Your task to perform on an android device: turn smart compose on in the gmail app Image 0: 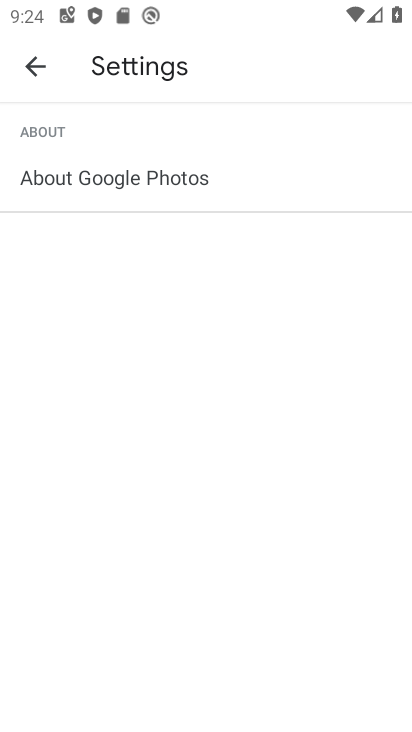
Step 0: press home button
Your task to perform on an android device: turn smart compose on in the gmail app Image 1: 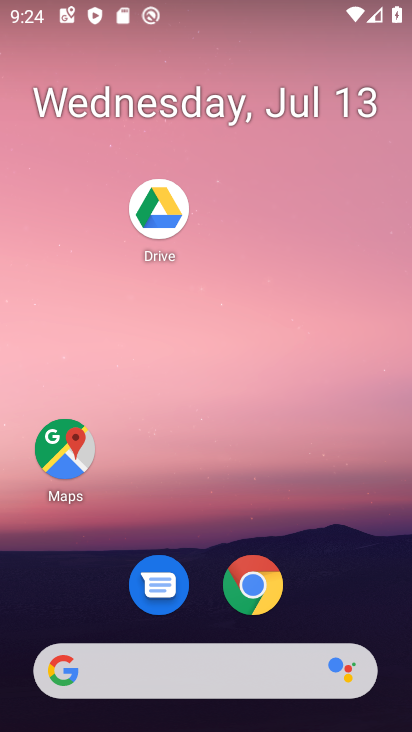
Step 1: drag from (223, 681) to (331, 145)
Your task to perform on an android device: turn smart compose on in the gmail app Image 2: 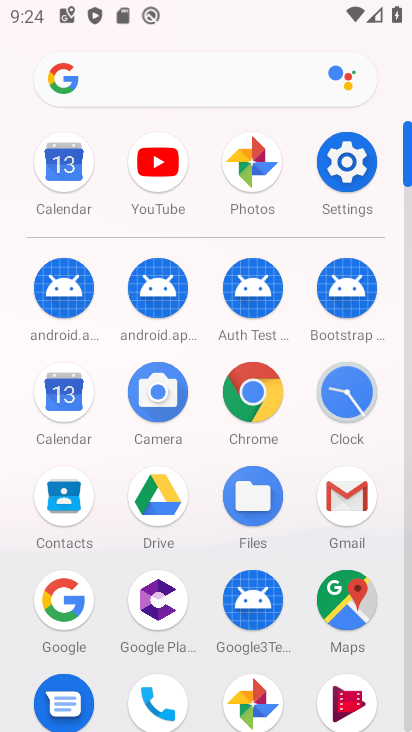
Step 2: click (359, 510)
Your task to perform on an android device: turn smart compose on in the gmail app Image 3: 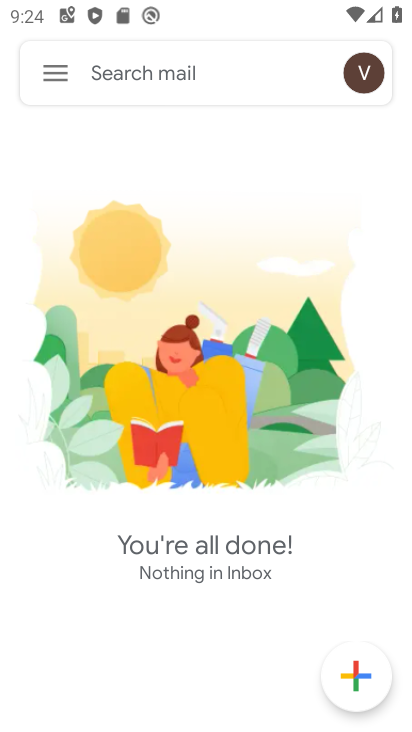
Step 3: click (53, 76)
Your task to perform on an android device: turn smart compose on in the gmail app Image 4: 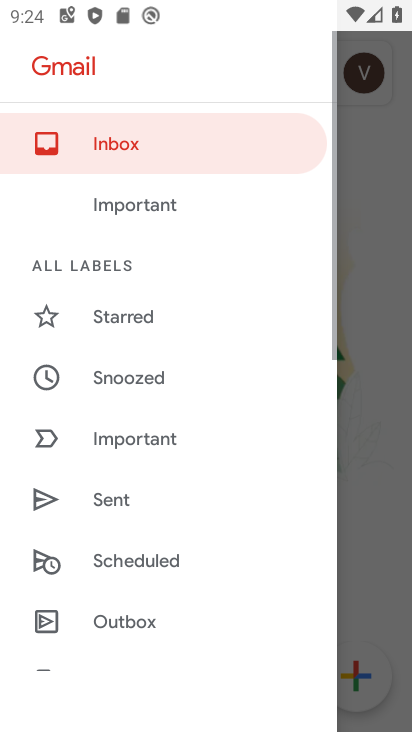
Step 4: drag from (216, 411) to (310, 35)
Your task to perform on an android device: turn smart compose on in the gmail app Image 5: 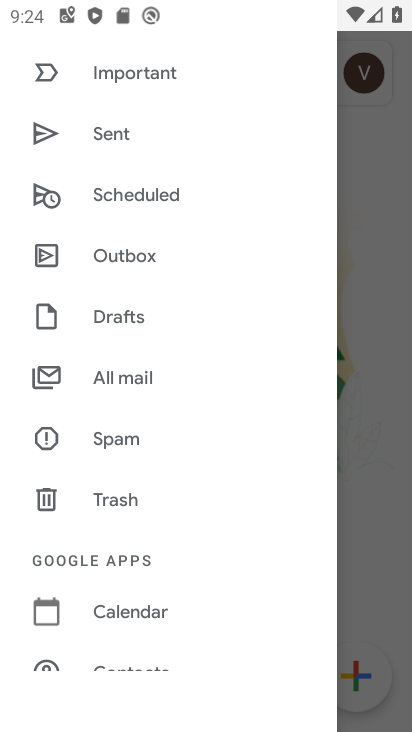
Step 5: drag from (209, 609) to (267, 35)
Your task to perform on an android device: turn smart compose on in the gmail app Image 6: 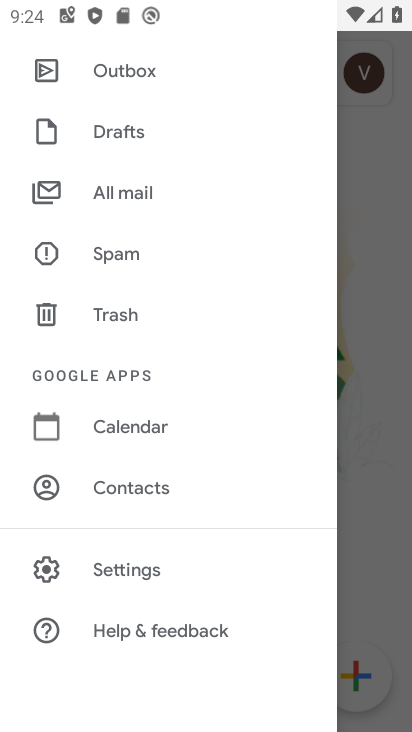
Step 6: click (138, 570)
Your task to perform on an android device: turn smart compose on in the gmail app Image 7: 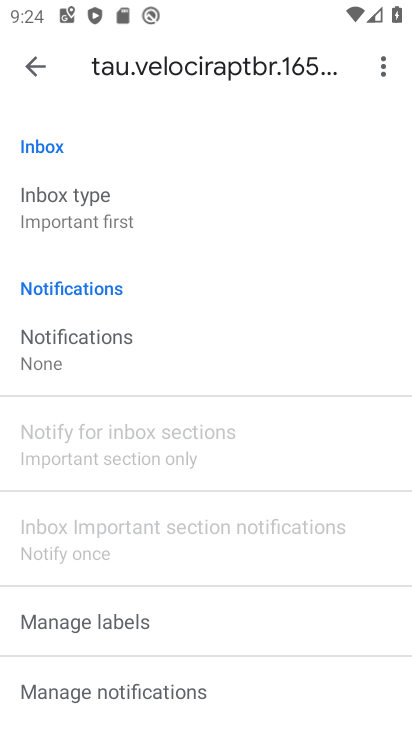
Step 7: task complete